Your task to perform on an android device: What's on my calendar tomorrow? Image 0: 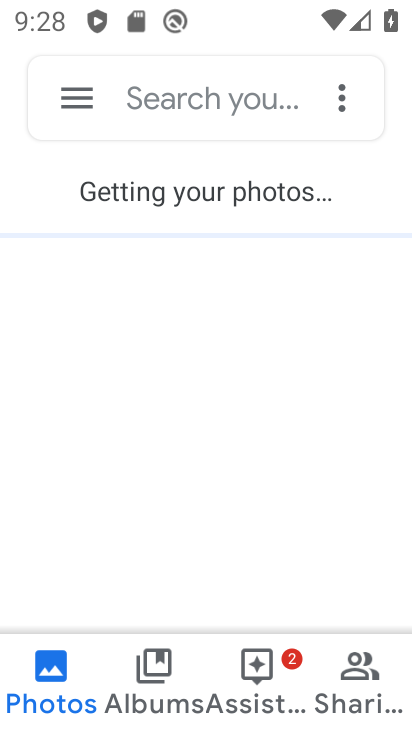
Step 0: press home button
Your task to perform on an android device: What's on my calendar tomorrow? Image 1: 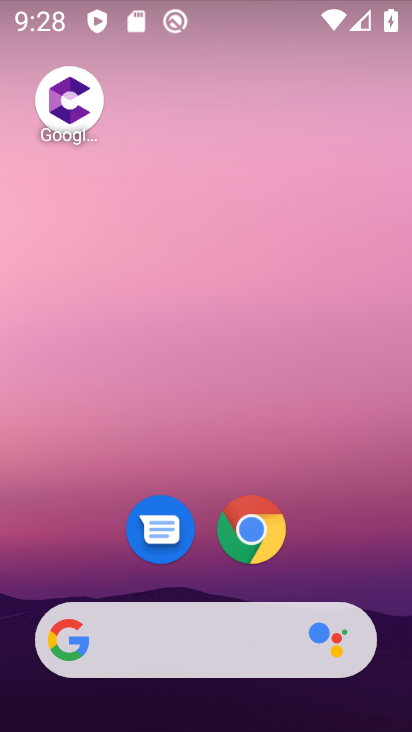
Step 1: drag from (184, 627) to (164, 23)
Your task to perform on an android device: What's on my calendar tomorrow? Image 2: 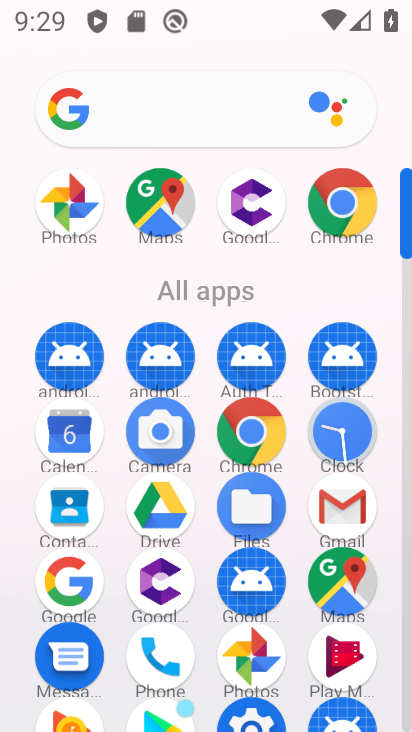
Step 2: click (77, 440)
Your task to perform on an android device: What's on my calendar tomorrow? Image 3: 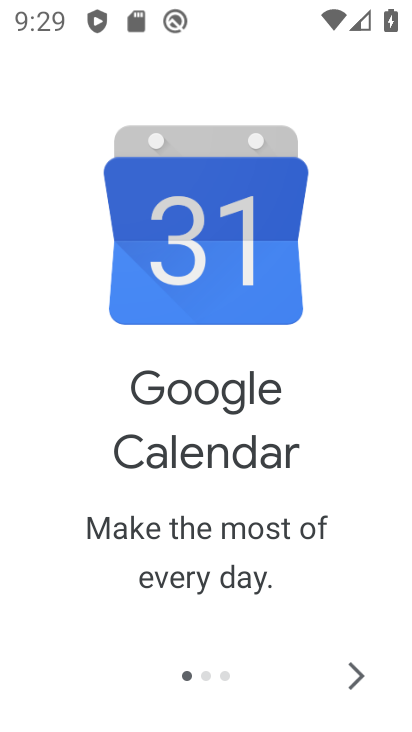
Step 3: click (342, 670)
Your task to perform on an android device: What's on my calendar tomorrow? Image 4: 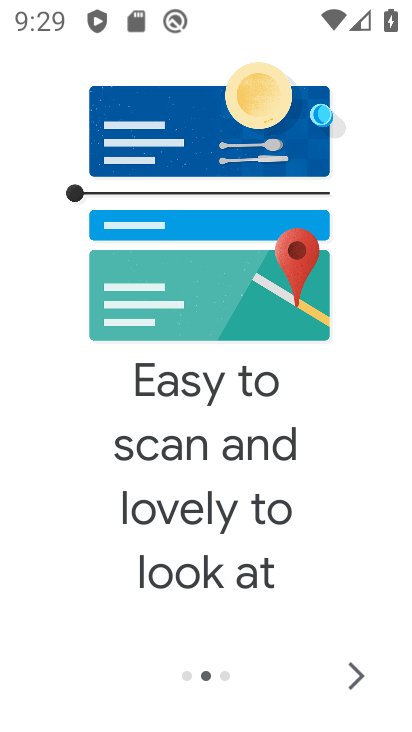
Step 4: click (342, 670)
Your task to perform on an android device: What's on my calendar tomorrow? Image 5: 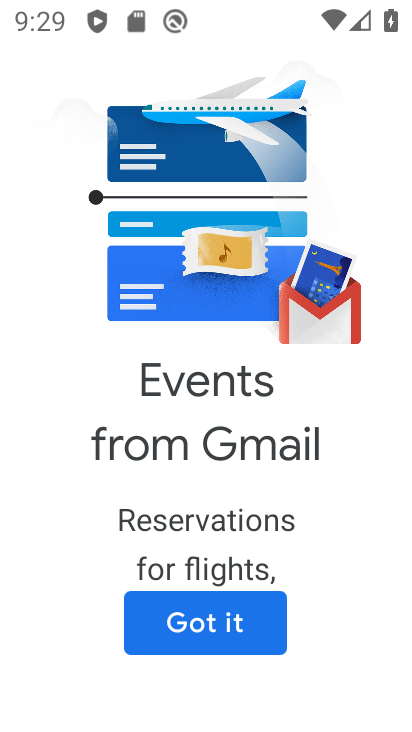
Step 5: click (253, 640)
Your task to perform on an android device: What's on my calendar tomorrow? Image 6: 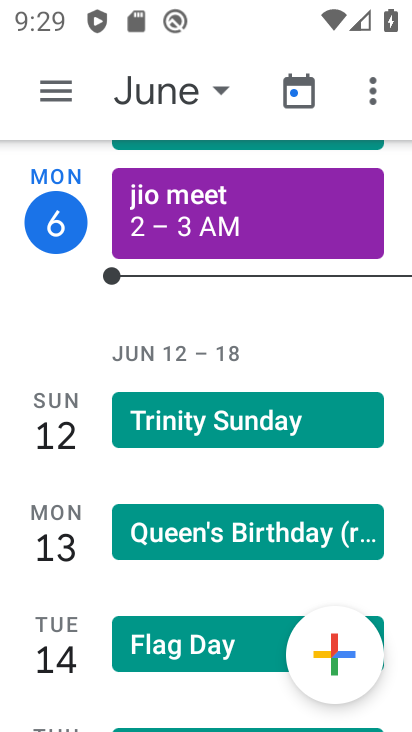
Step 6: click (378, 100)
Your task to perform on an android device: What's on my calendar tomorrow? Image 7: 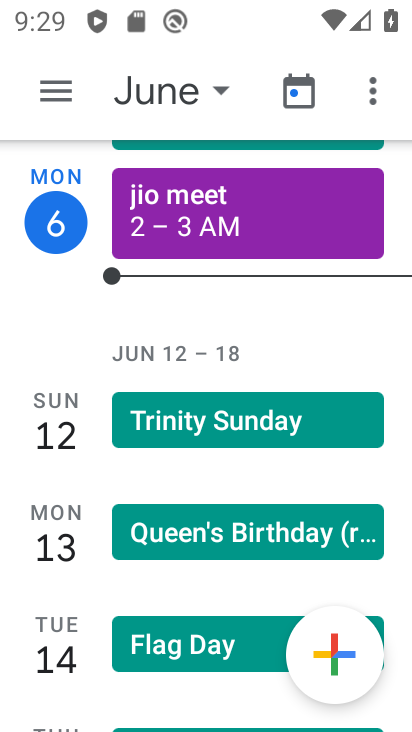
Step 7: task complete